Your task to perform on an android device: open app "YouTube Kids" (install if not already installed) and go to login screen Image 0: 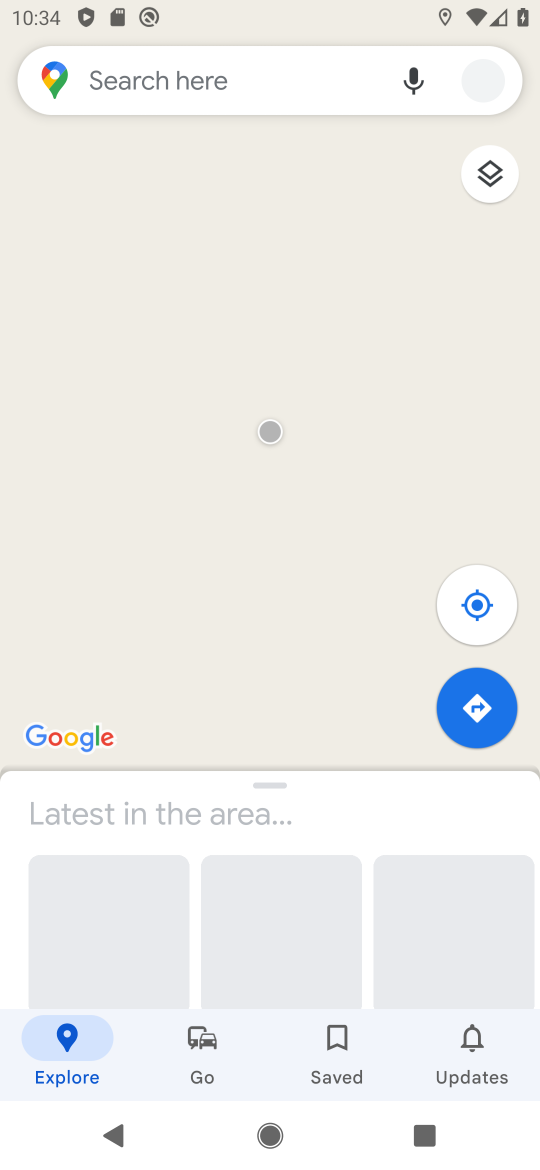
Step 0: press home button
Your task to perform on an android device: open app "YouTube Kids" (install if not already installed) and go to login screen Image 1: 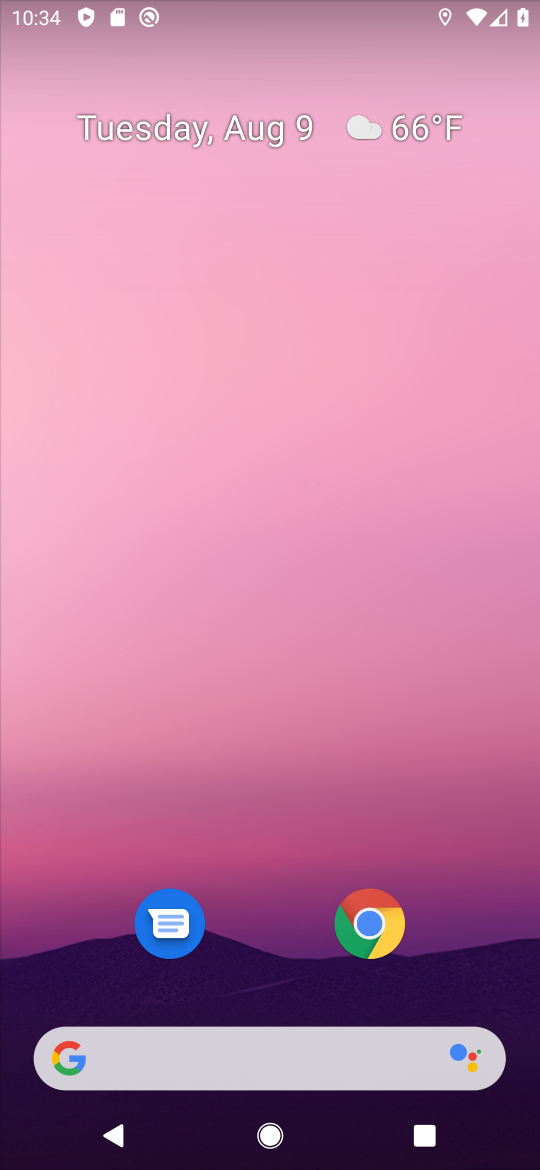
Step 1: drag from (269, 1002) to (348, 127)
Your task to perform on an android device: open app "YouTube Kids" (install if not already installed) and go to login screen Image 2: 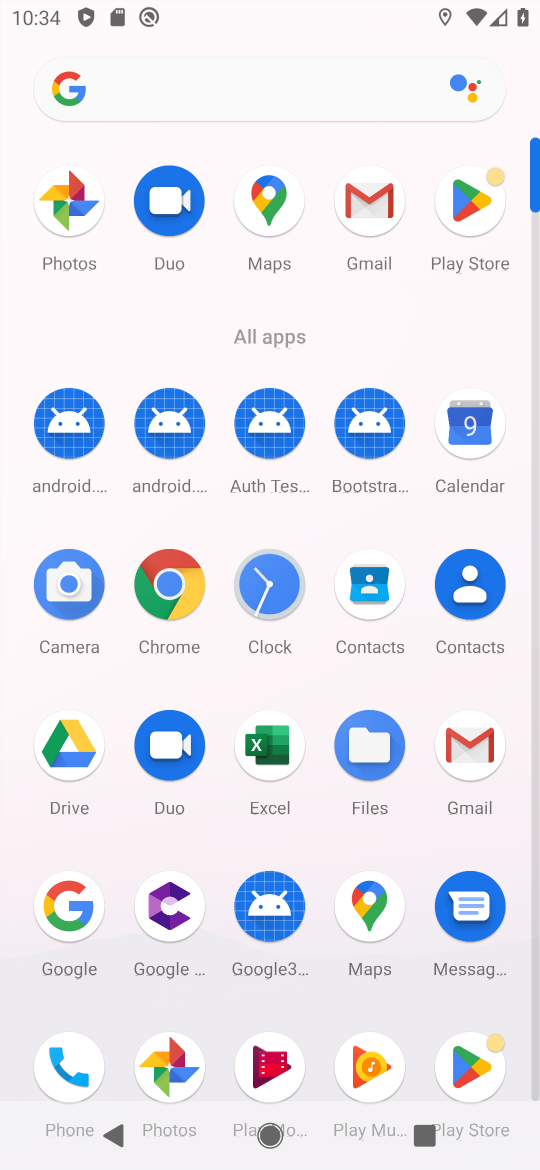
Step 2: drag from (306, 1004) to (269, 366)
Your task to perform on an android device: open app "YouTube Kids" (install if not already installed) and go to login screen Image 3: 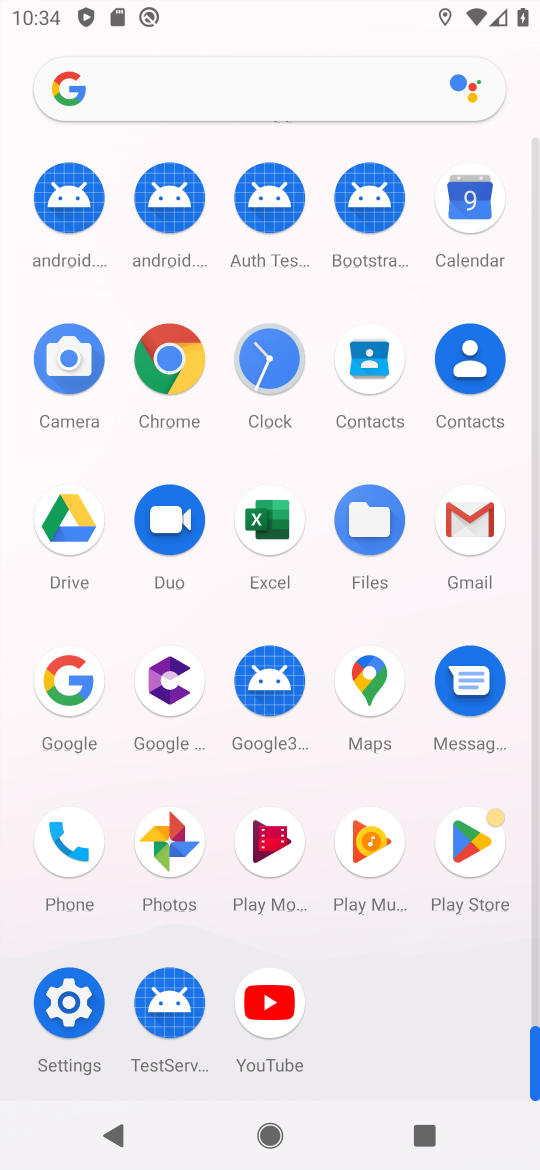
Step 3: click (461, 831)
Your task to perform on an android device: open app "YouTube Kids" (install if not already installed) and go to login screen Image 4: 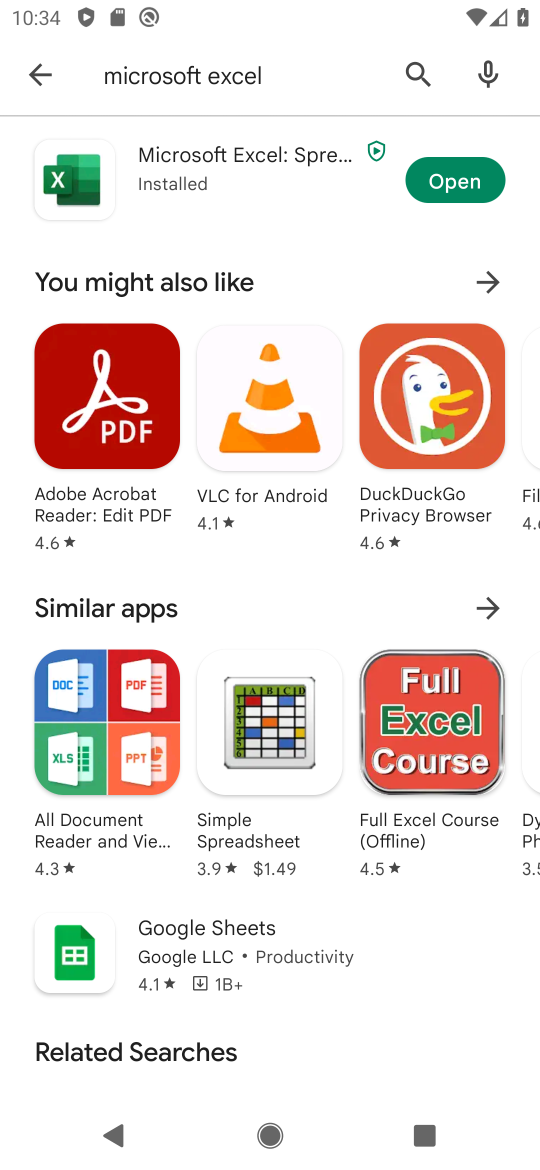
Step 4: click (412, 73)
Your task to perform on an android device: open app "YouTube Kids" (install if not already installed) and go to login screen Image 5: 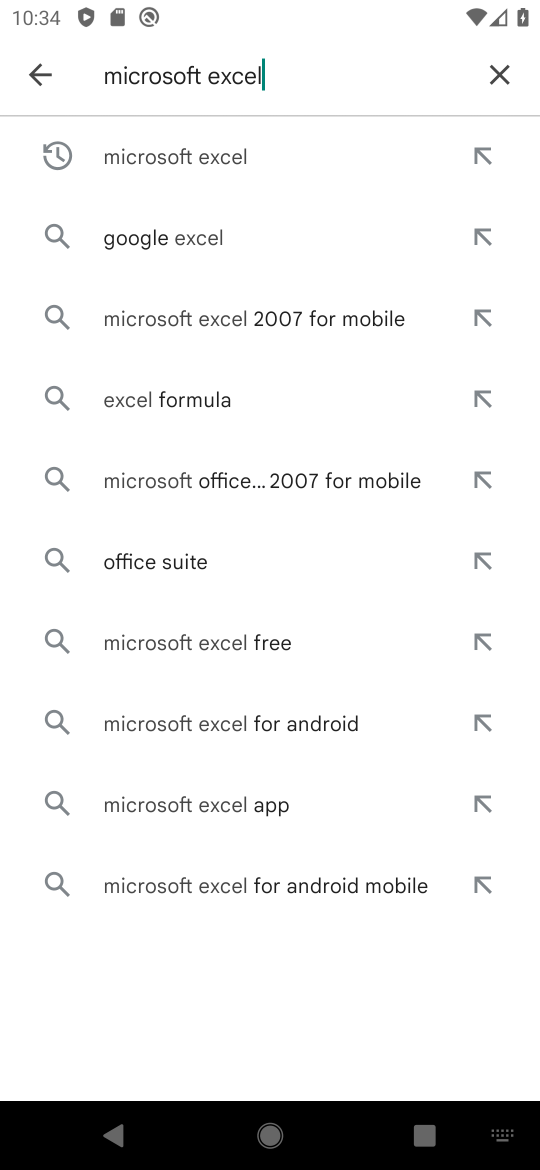
Step 5: click (498, 76)
Your task to perform on an android device: open app "YouTube Kids" (install if not already installed) and go to login screen Image 6: 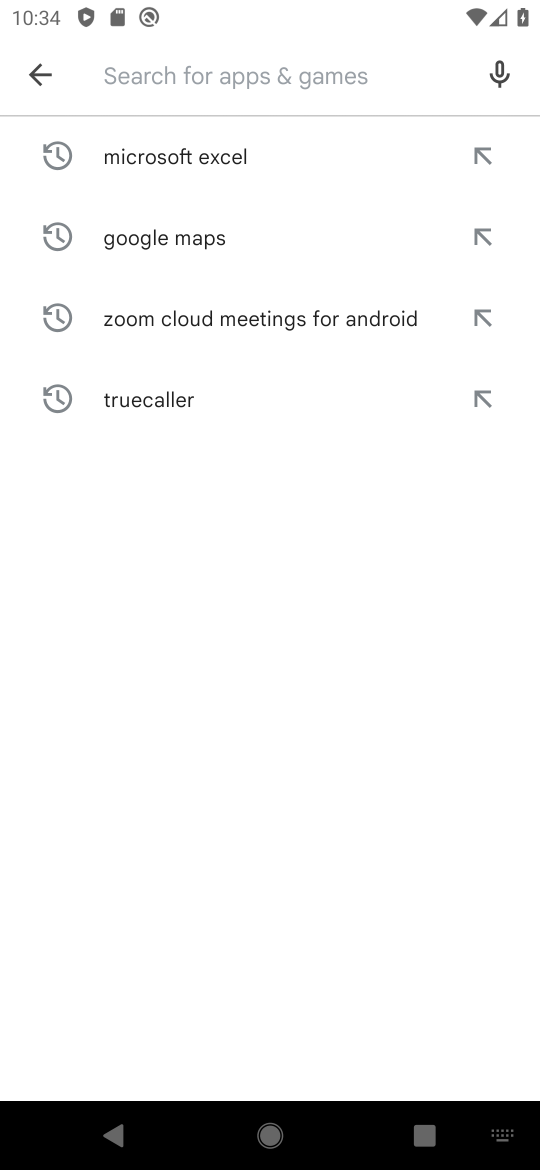
Step 6: type "YouTube Kids"
Your task to perform on an android device: open app "YouTube Kids" (install if not already installed) and go to login screen Image 7: 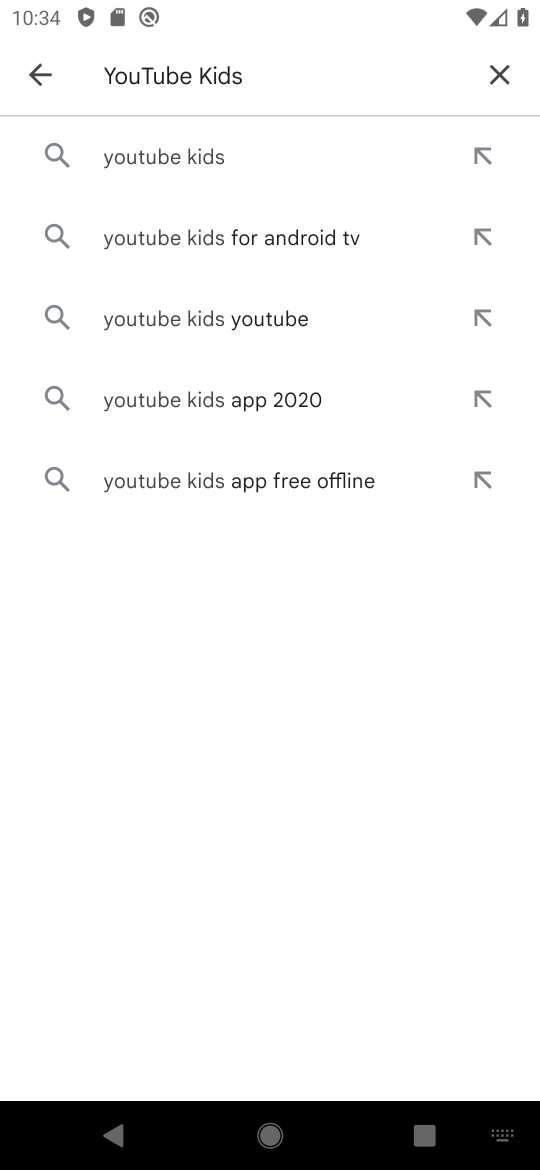
Step 7: click (239, 153)
Your task to perform on an android device: open app "YouTube Kids" (install if not already installed) and go to login screen Image 8: 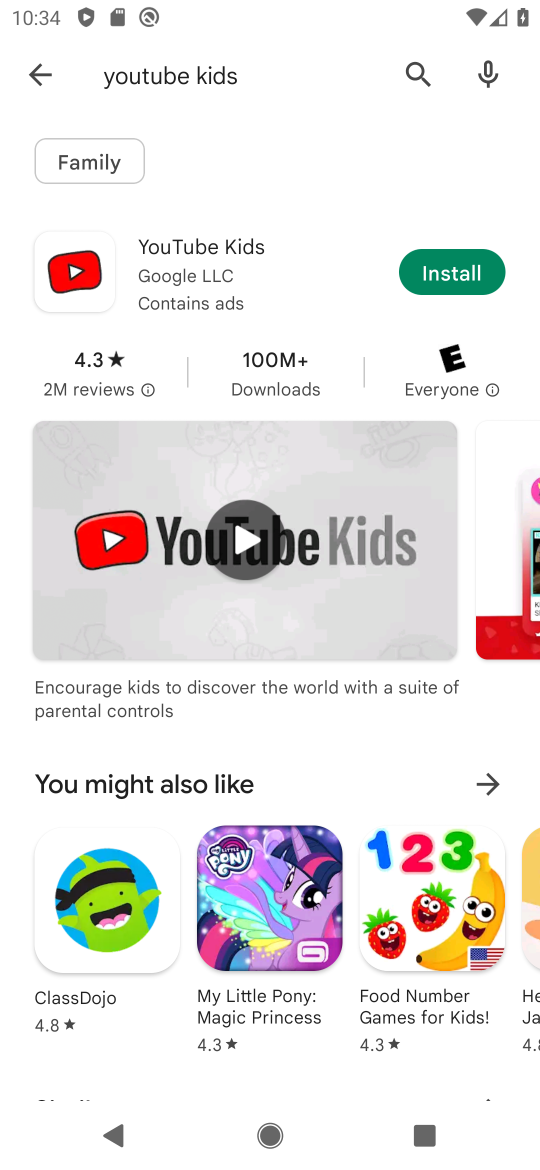
Step 8: click (454, 266)
Your task to perform on an android device: open app "YouTube Kids" (install if not already installed) and go to login screen Image 9: 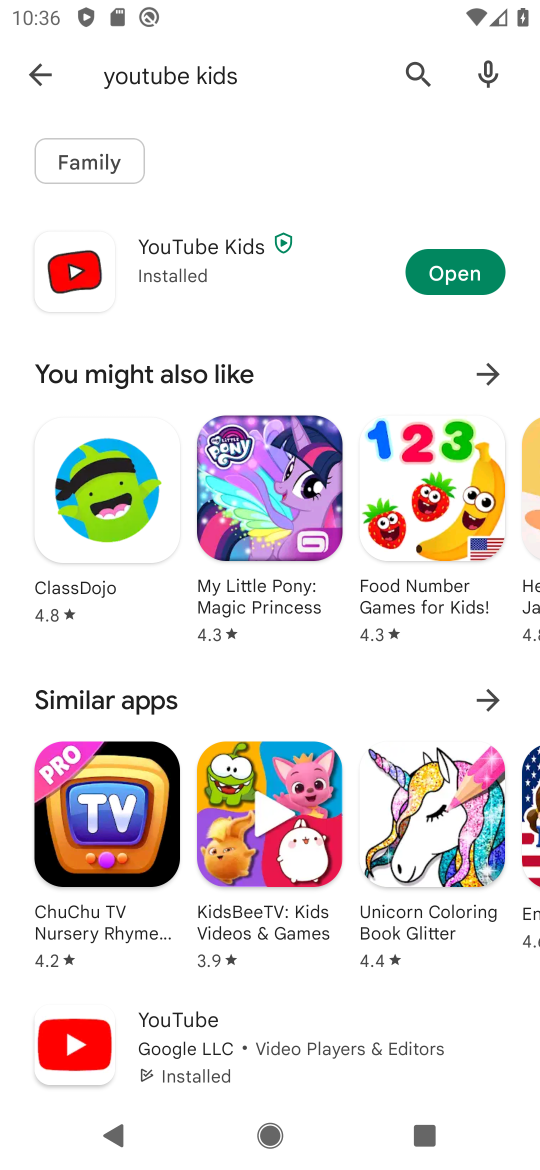
Step 9: click (456, 269)
Your task to perform on an android device: open app "YouTube Kids" (install if not already installed) and go to login screen Image 10: 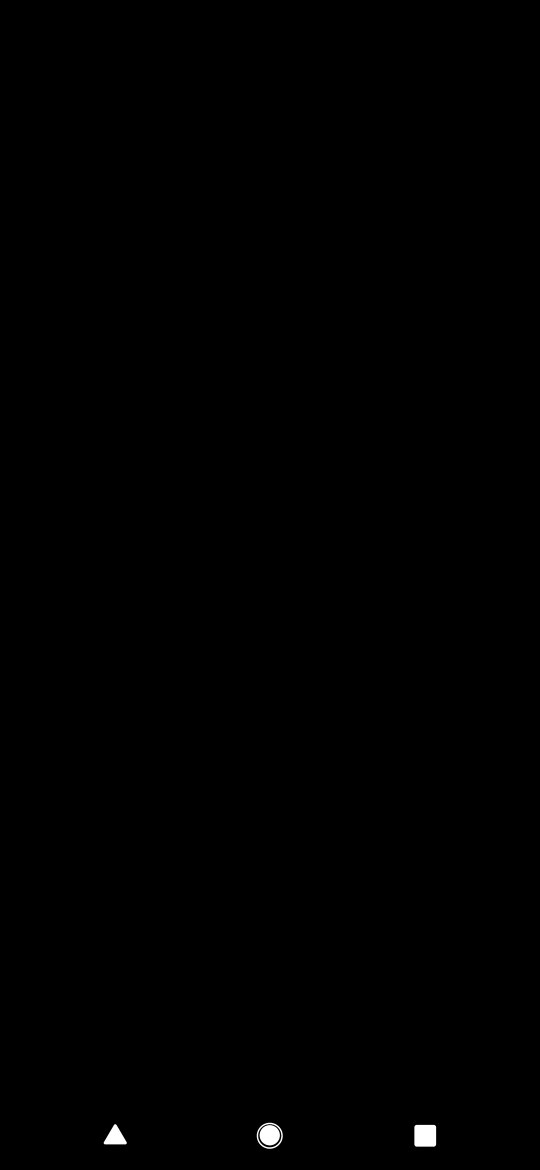
Step 10: task complete